Your task to perform on an android device: turn off airplane mode Image 0: 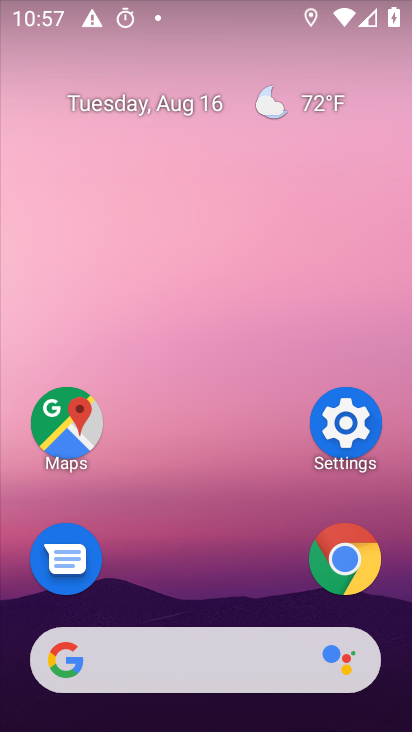
Step 0: click (352, 425)
Your task to perform on an android device: turn off airplane mode Image 1: 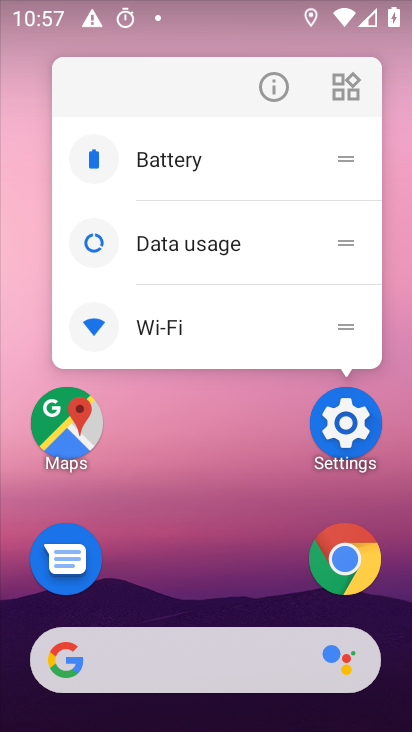
Step 1: click (352, 425)
Your task to perform on an android device: turn off airplane mode Image 2: 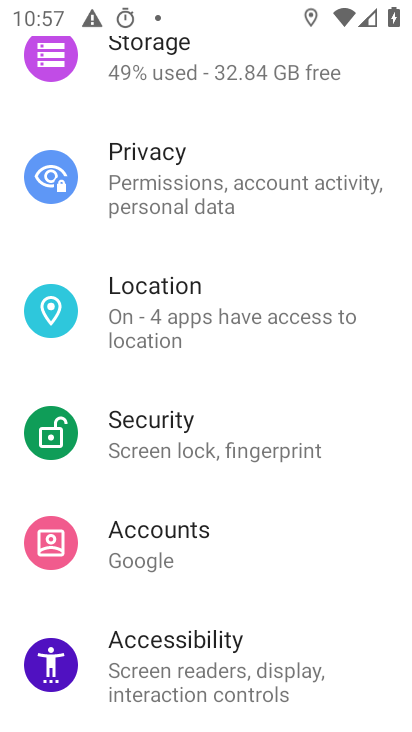
Step 2: drag from (322, 125) to (321, 593)
Your task to perform on an android device: turn off airplane mode Image 3: 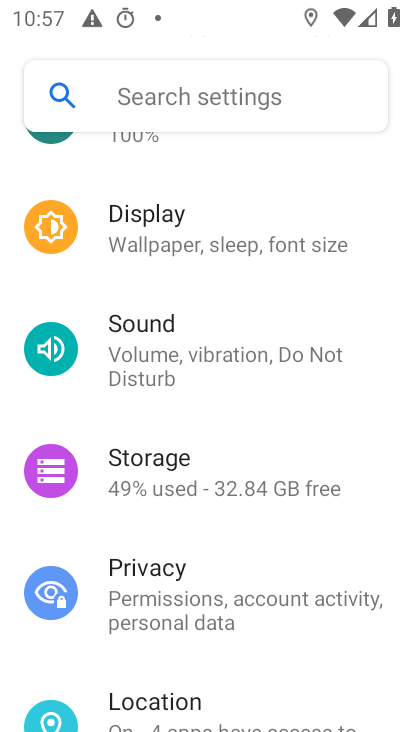
Step 3: drag from (297, 176) to (326, 638)
Your task to perform on an android device: turn off airplane mode Image 4: 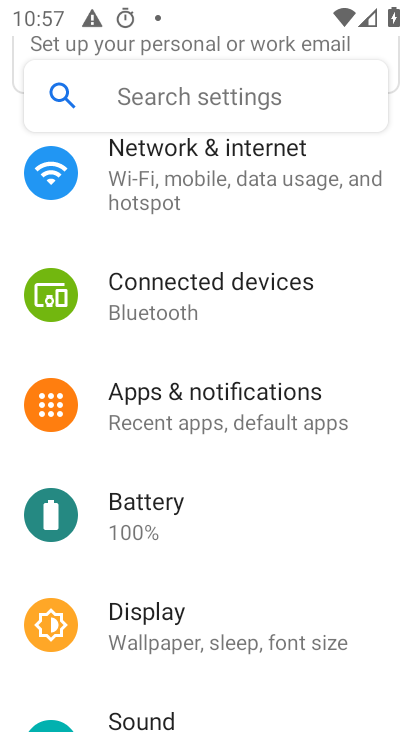
Step 4: drag from (294, 224) to (349, 633)
Your task to perform on an android device: turn off airplane mode Image 5: 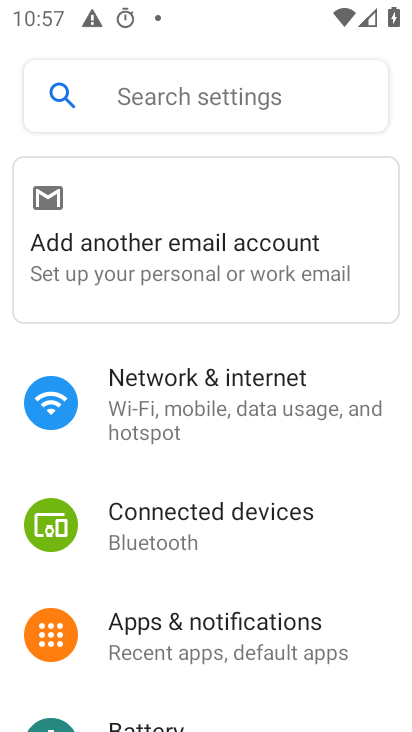
Step 5: click (248, 391)
Your task to perform on an android device: turn off airplane mode Image 6: 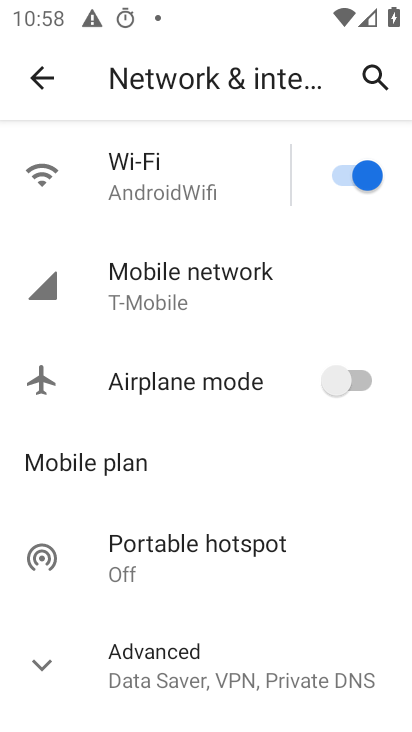
Step 6: task complete